Your task to perform on an android device: star an email in the gmail app Image 0: 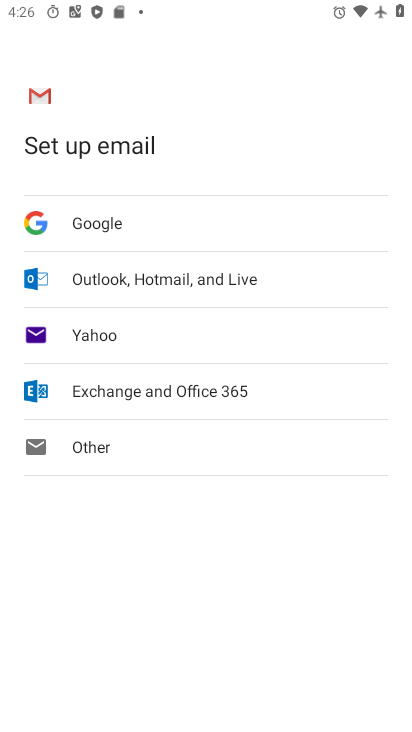
Step 0: press back button
Your task to perform on an android device: star an email in the gmail app Image 1: 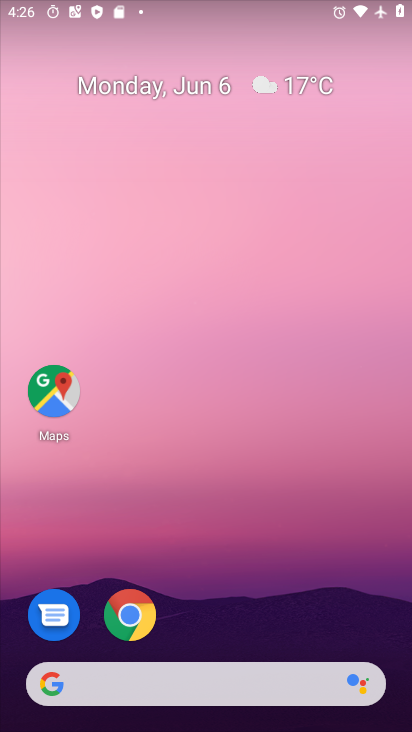
Step 1: drag from (199, 573) to (155, 6)
Your task to perform on an android device: star an email in the gmail app Image 2: 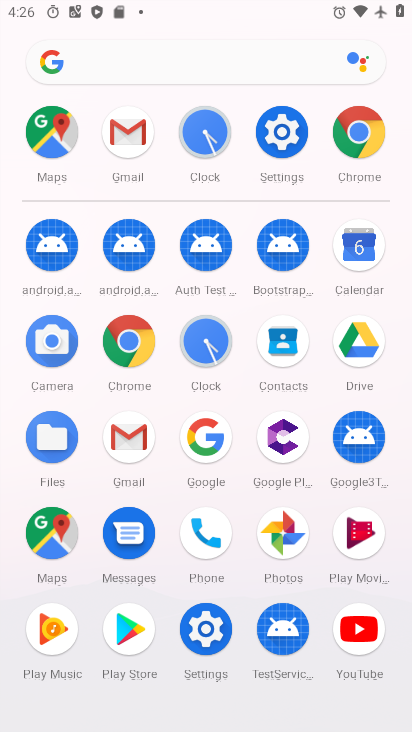
Step 2: drag from (6, 604) to (33, 242)
Your task to perform on an android device: star an email in the gmail app Image 3: 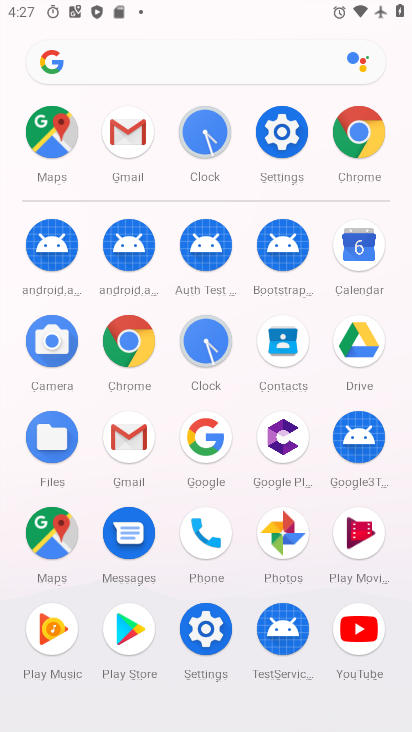
Step 3: click (127, 431)
Your task to perform on an android device: star an email in the gmail app Image 4: 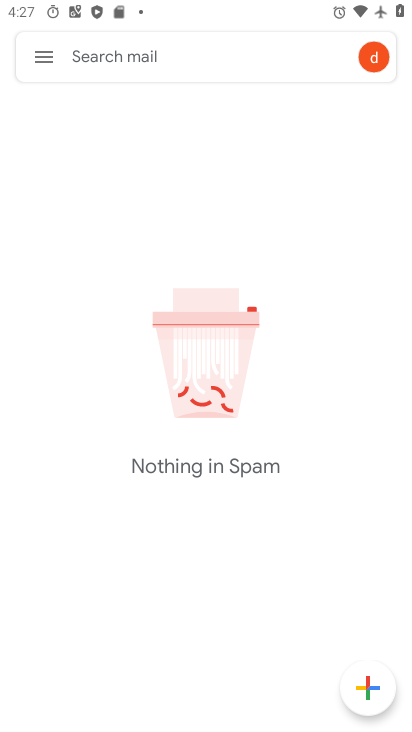
Step 4: click (49, 44)
Your task to perform on an android device: star an email in the gmail app Image 5: 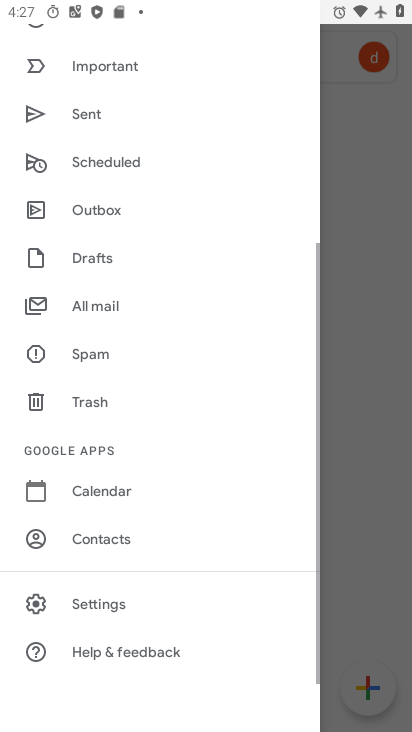
Step 5: drag from (185, 129) to (197, 602)
Your task to perform on an android device: star an email in the gmail app Image 6: 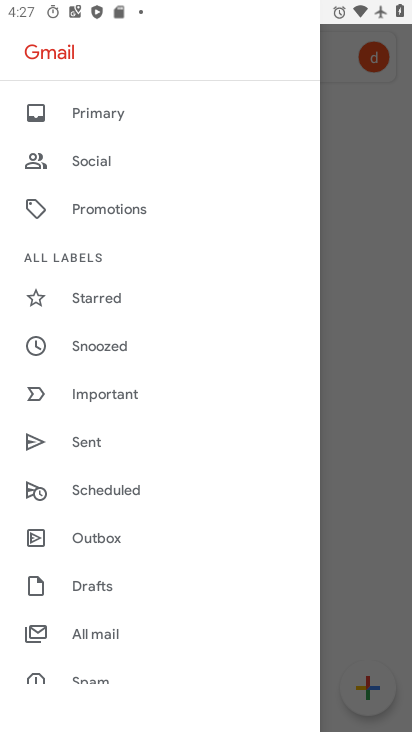
Step 6: click (122, 292)
Your task to perform on an android device: star an email in the gmail app Image 7: 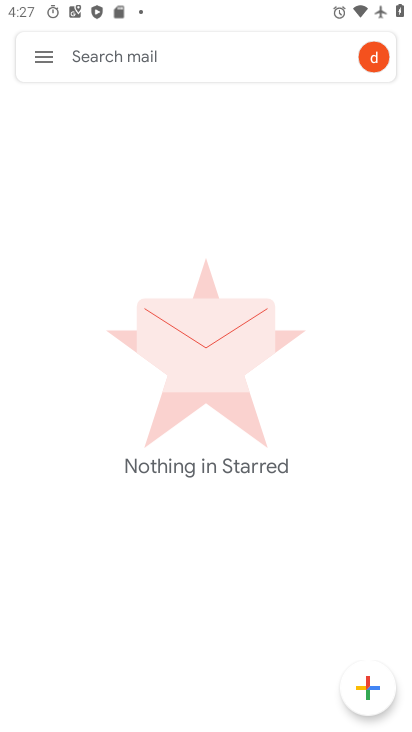
Step 7: task complete